Your task to perform on an android device: add a label to a message in the gmail app Image 0: 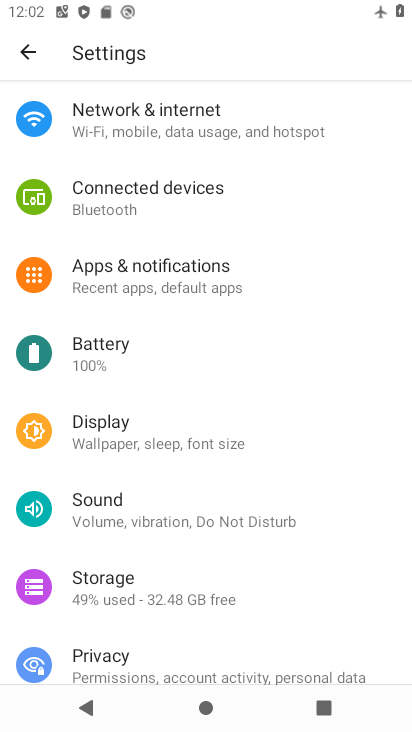
Step 0: press home button
Your task to perform on an android device: add a label to a message in the gmail app Image 1: 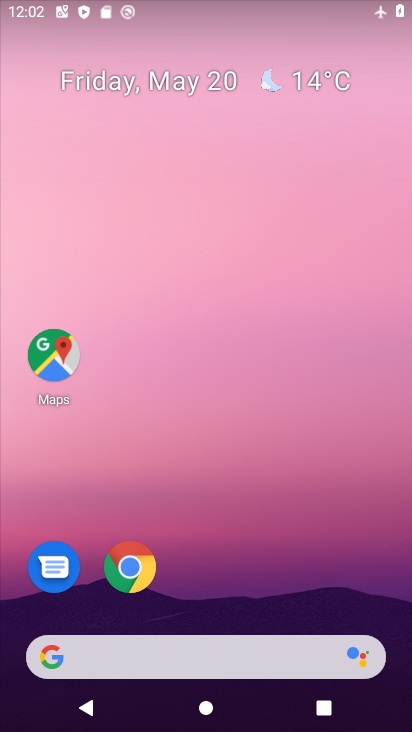
Step 1: drag from (357, 573) to (367, 49)
Your task to perform on an android device: add a label to a message in the gmail app Image 2: 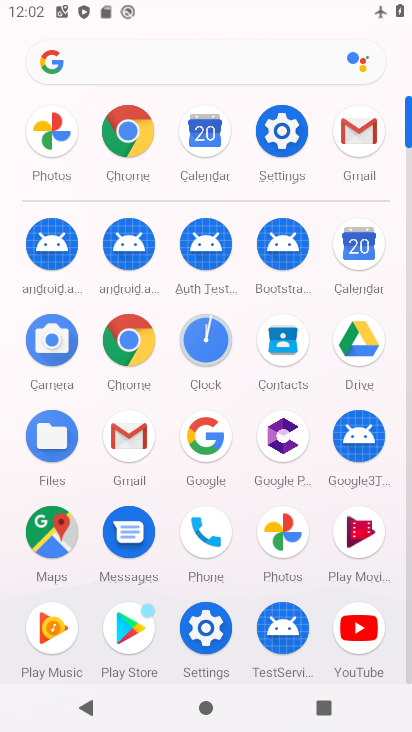
Step 2: click (367, 131)
Your task to perform on an android device: add a label to a message in the gmail app Image 3: 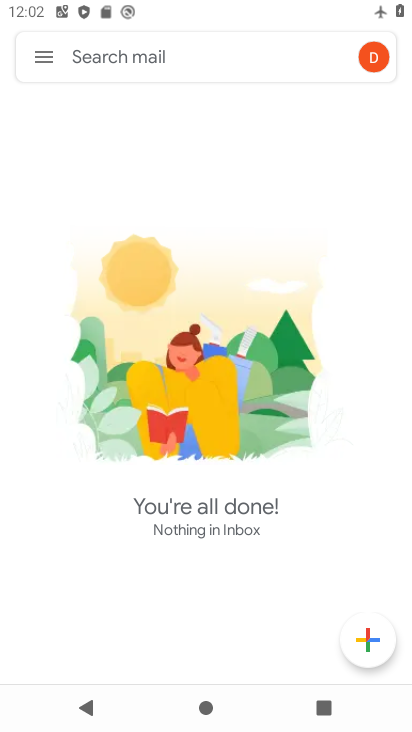
Step 3: task complete